Your task to perform on an android device: Open Youtube and go to the subscriptions tab Image 0: 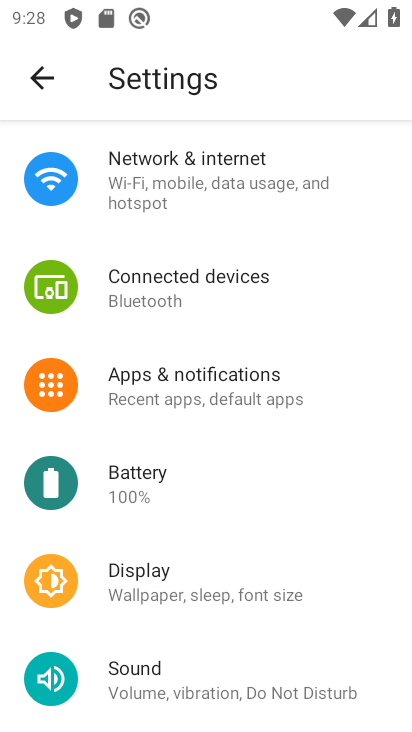
Step 0: press home button
Your task to perform on an android device: Open Youtube and go to the subscriptions tab Image 1: 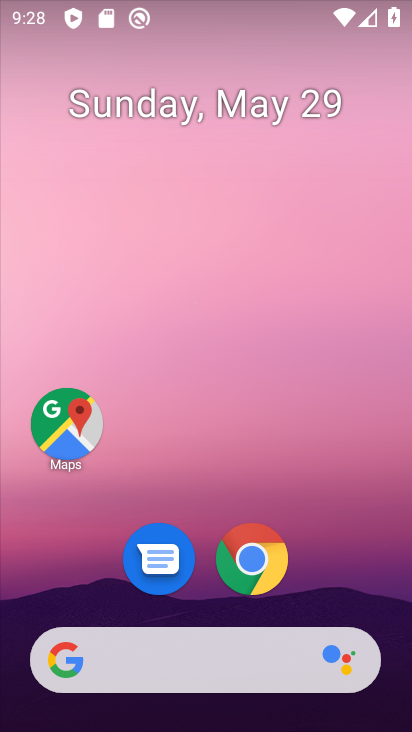
Step 1: drag from (70, 617) to (221, 103)
Your task to perform on an android device: Open Youtube and go to the subscriptions tab Image 2: 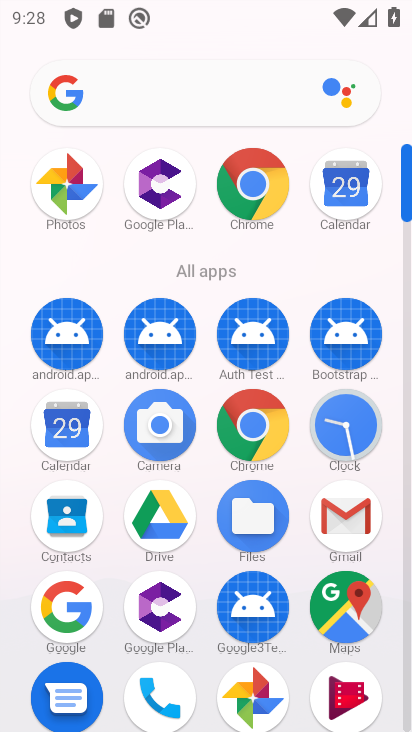
Step 2: drag from (186, 596) to (249, 358)
Your task to perform on an android device: Open Youtube and go to the subscriptions tab Image 3: 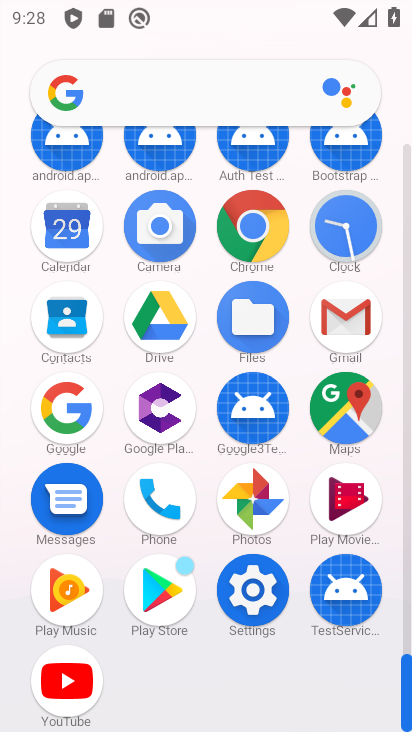
Step 3: click (68, 682)
Your task to perform on an android device: Open Youtube and go to the subscriptions tab Image 4: 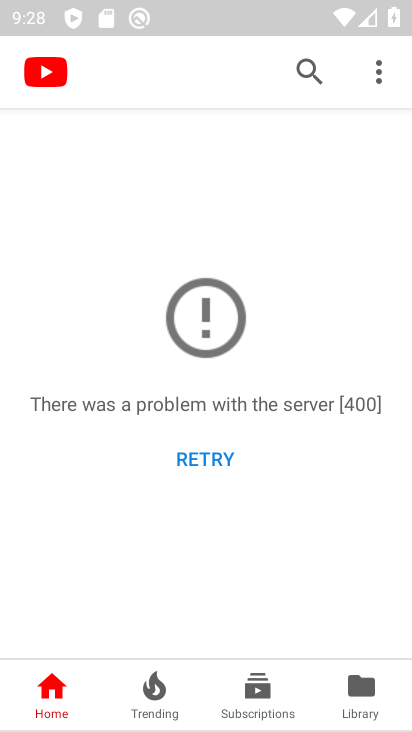
Step 4: click (283, 712)
Your task to perform on an android device: Open Youtube and go to the subscriptions tab Image 5: 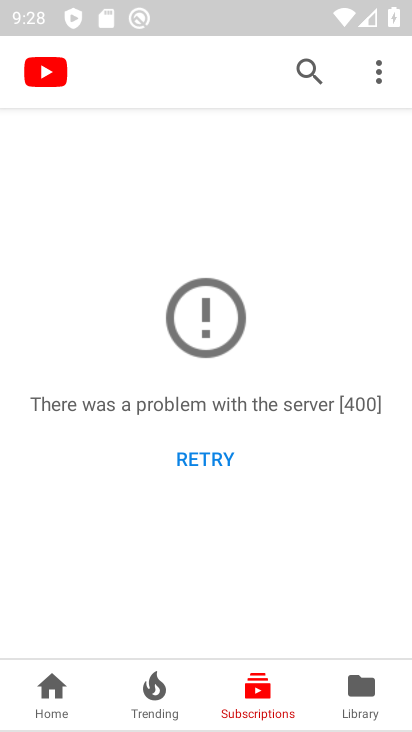
Step 5: task complete